Your task to perform on an android device: Clear the cart on ebay. Image 0: 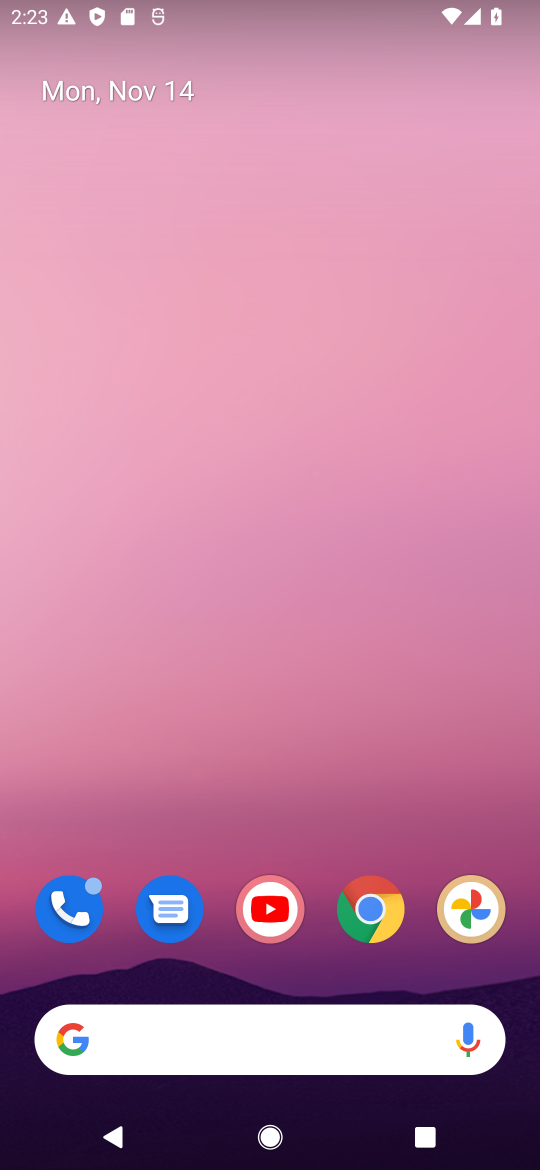
Step 0: drag from (330, 850) to (327, 147)
Your task to perform on an android device: Clear the cart on ebay. Image 1: 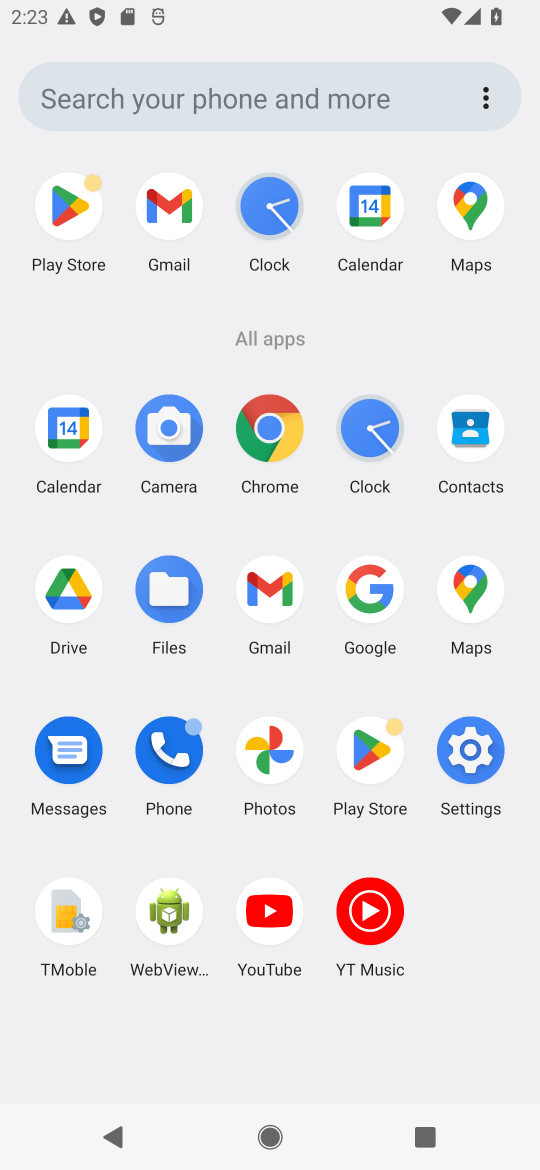
Step 1: click (273, 421)
Your task to perform on an android device: Clear the cart on ebay. Image 2: 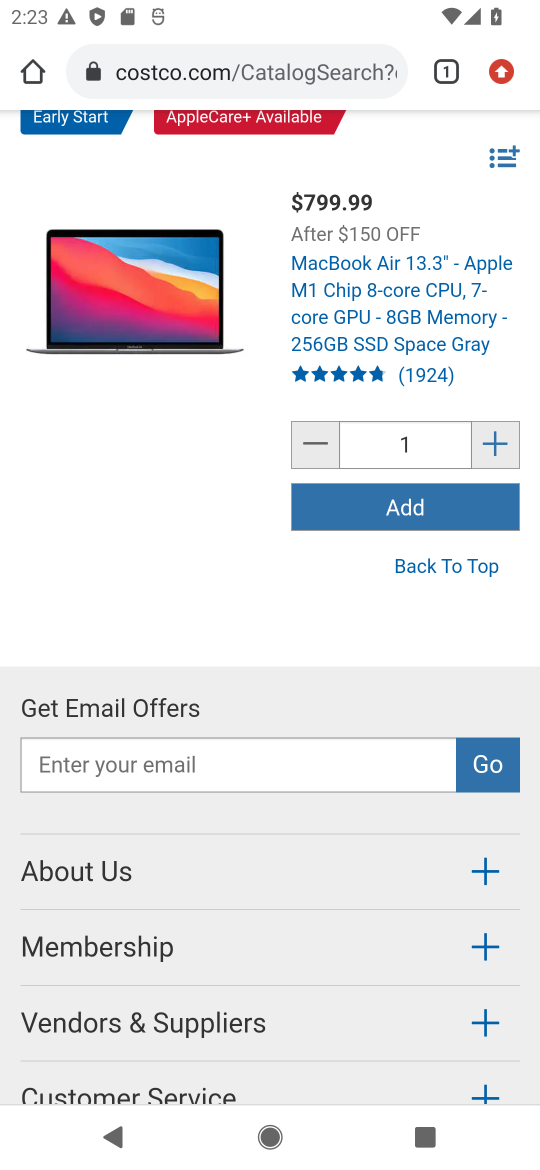
Step 2: click (305, 62)
Your task to perform on an android device: Clear the cart on ebay. Image 3: 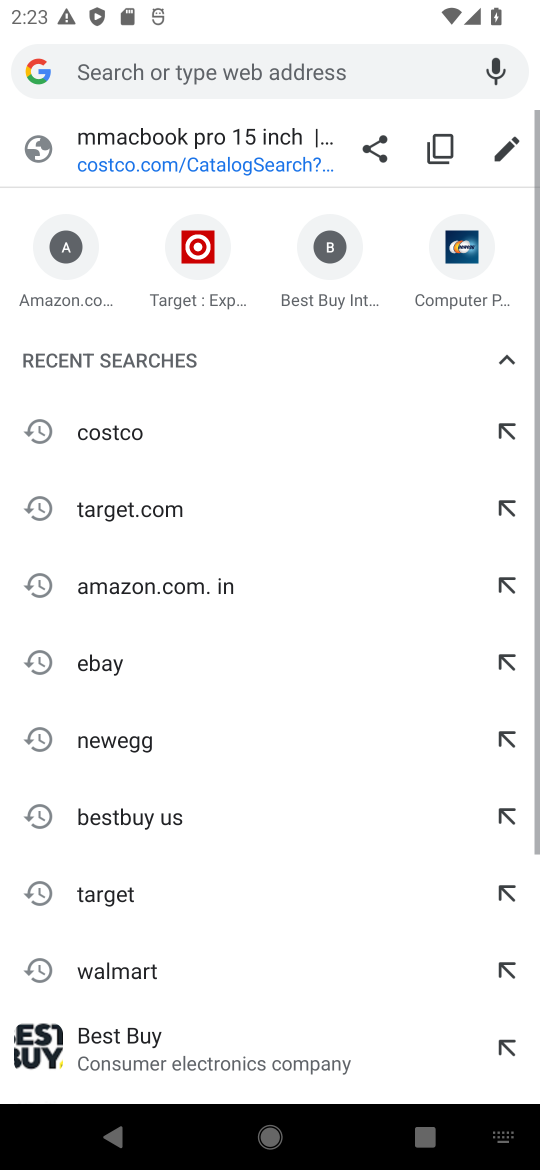
Step 3: type "ebay.com"
Your task to perform on an android device: Clear the cart on ebay. Image 4: 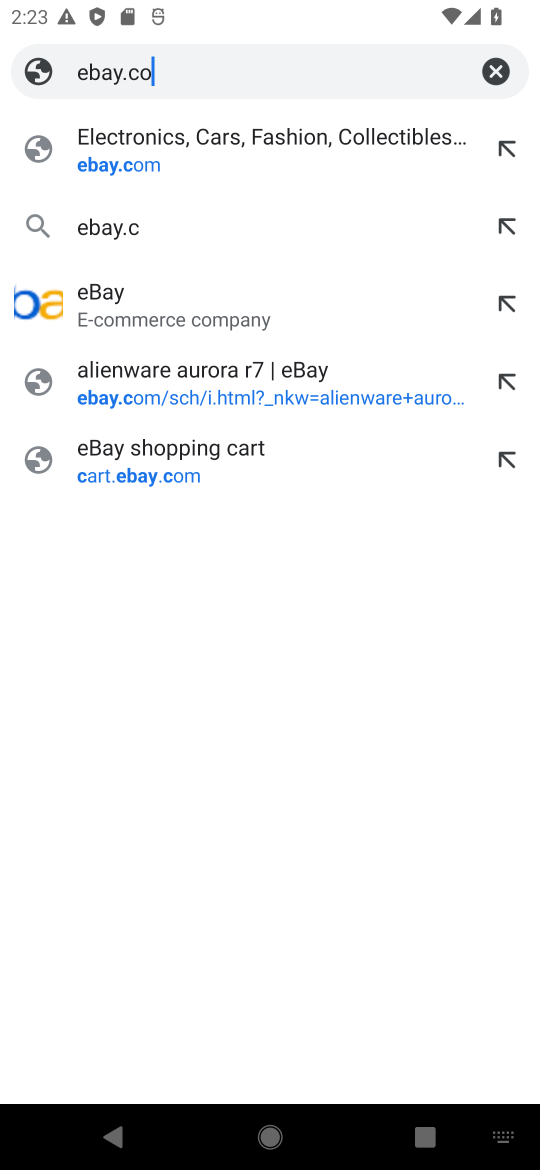
Step 4: press enter
Your task to perform on an android device: Clear the cart on ebay. Image 5: 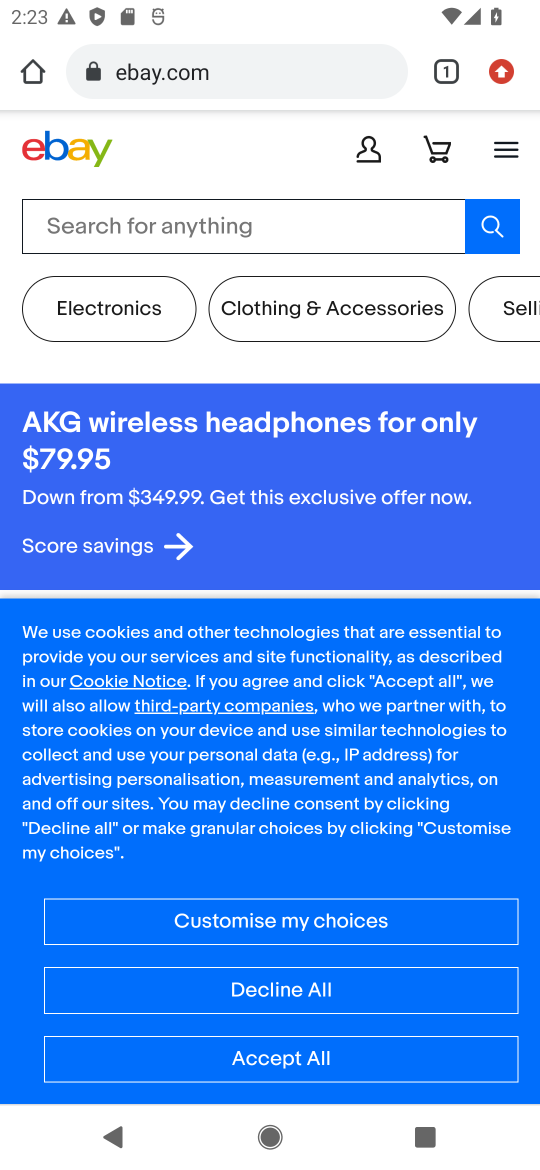
Step 5: click (440, 151)
Your task to perform on an android device: Clear the cart on ebay. Image 6: 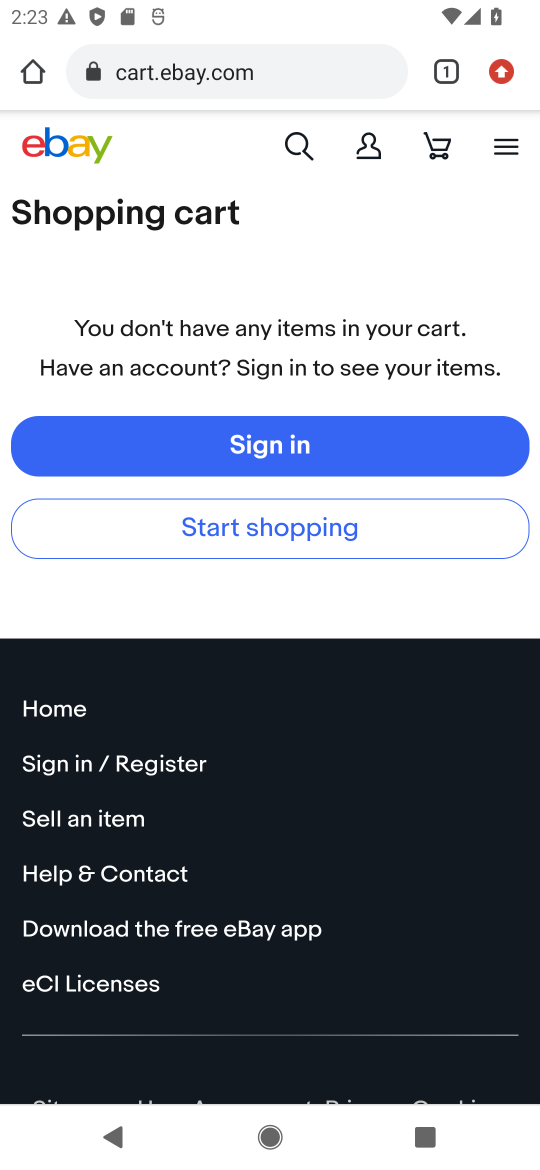
Step 6: task complete